Your task to perform on an android device: open the mobile data screen to see how much data has been used Image 0: 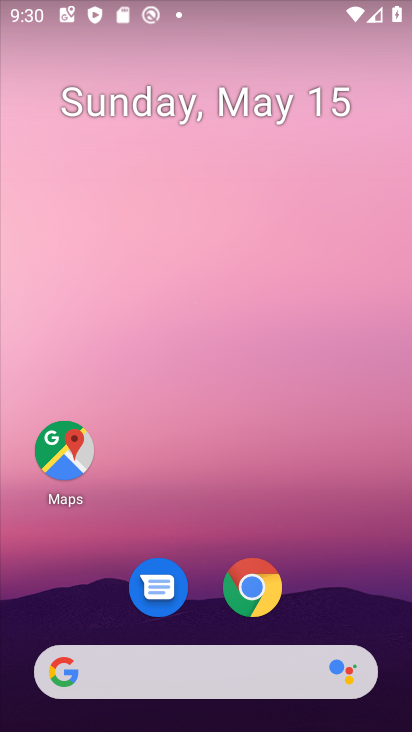
Step 0: drag from (352, 608) to (280, 101)
Your task to perform on an android device: open the mobile data screen to see how much data has been used Image 1: 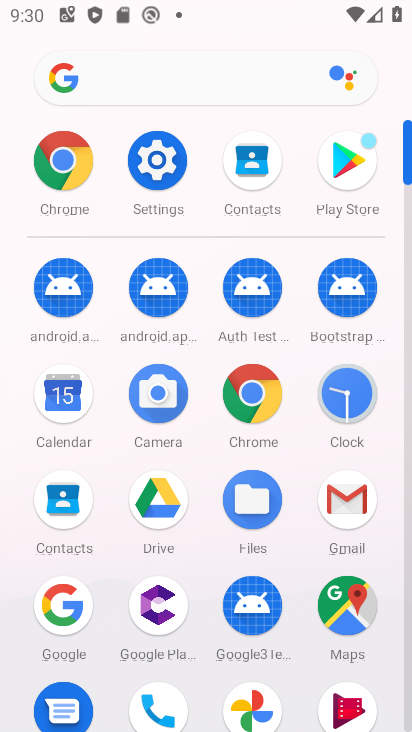
Step 1: click (155, 146)
Your task to perform on an android device: open the mobile data screen to see how much data has been used Image 2: 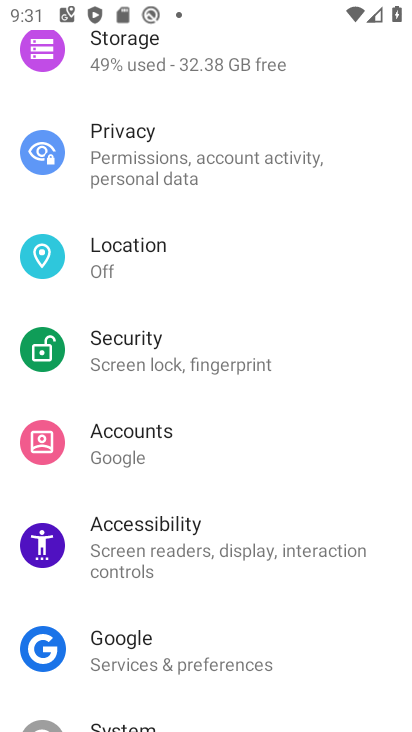
Step 2: drag from (226, 122) to (226, 726)
Your task to perform on an android device: open the mobile data screen to see how much data has been used Image 3: 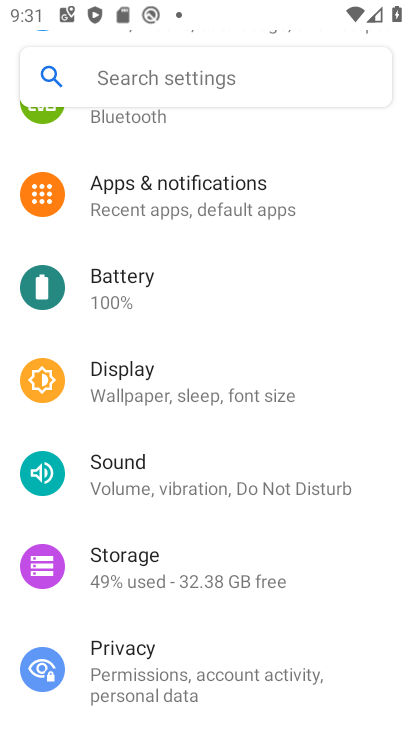
Step 3: drag from (255, 189) to (286, 717)
Your task to perform on an android device: open the mobile data screen to see how much data has been used Image 4: 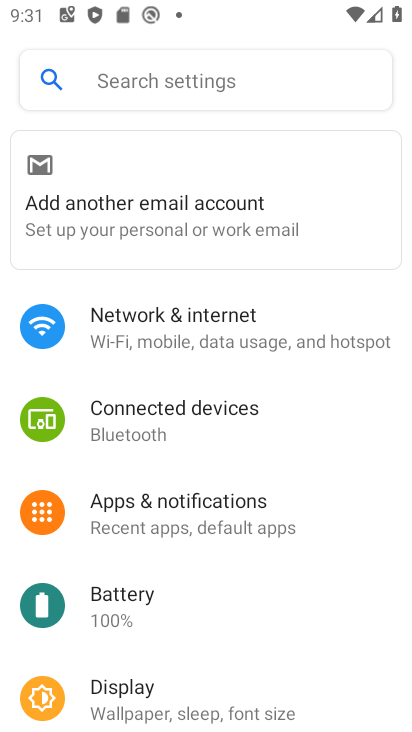
Step 4: click (214, 325)
Your task to perform on an android device: open the mobile data screen to see how much data has been used Image 5: 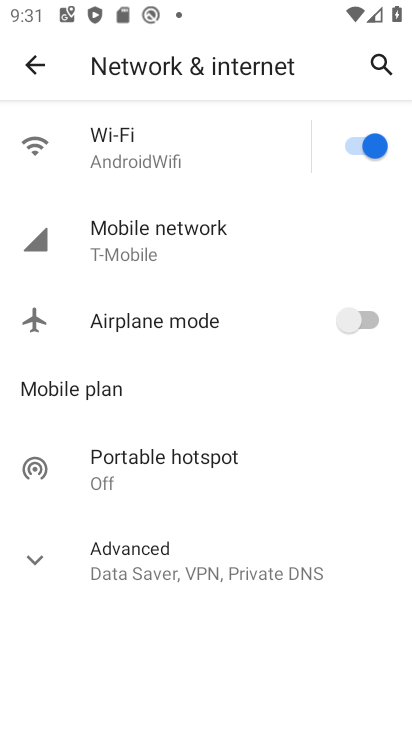
Step 5: click (196, 229)
Your task to perform on an android device: open the mobile data screen to see how much data has been used Image 6: 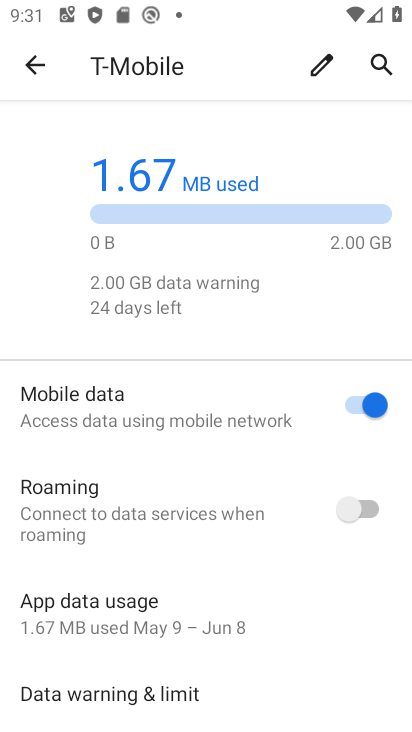
Step 6: task complete